Your task to perform on an android device: Open Android settings Image 0: 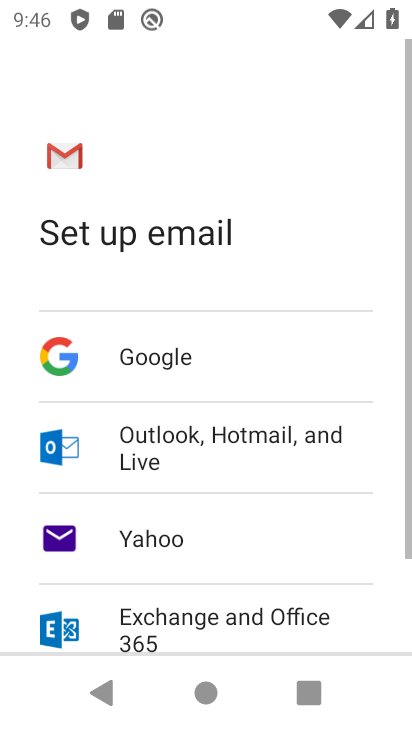
Step 0: press back button
Your task to perform on an android device: Open Android settings Image 1: 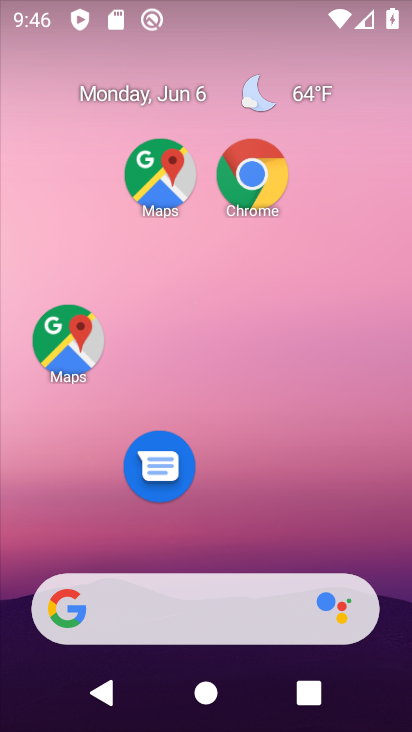
Step 1: drag from (237, 700) to (177, 146)
Your task to perform on an android device: Open Android settings Image 2: 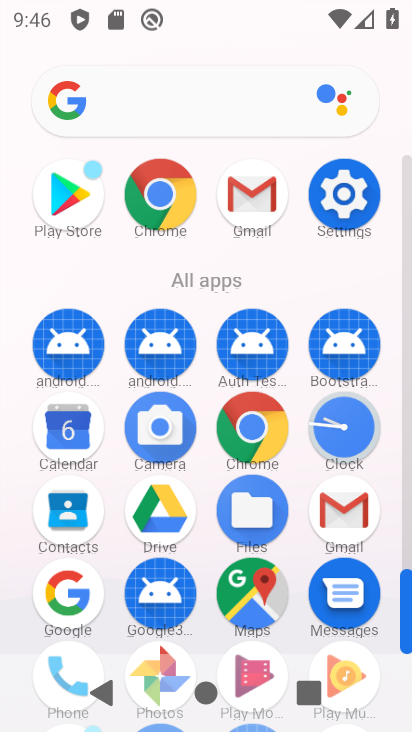
Step 2: click (335, 188)
Your task to perform on an android device: Open Android settings Image 3: 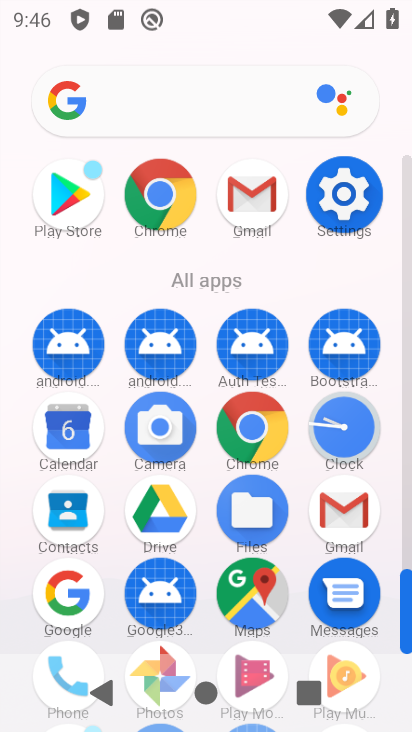
Step 3: click (335, 188)
Your task to perform on an android device: Open Android settings Image 4: 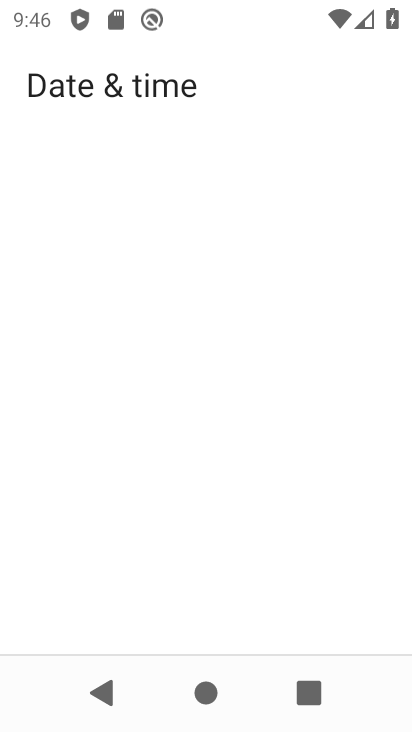
Step 4: click (337, 190)
Your task to perform on an android device: Open Android settings Image 5: 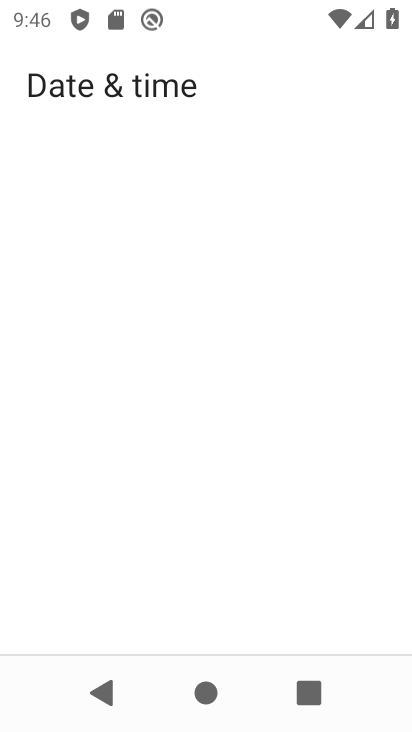
Step 5: click (338, 191)
Your task to perform on an android device: Open Android settings Image 6: 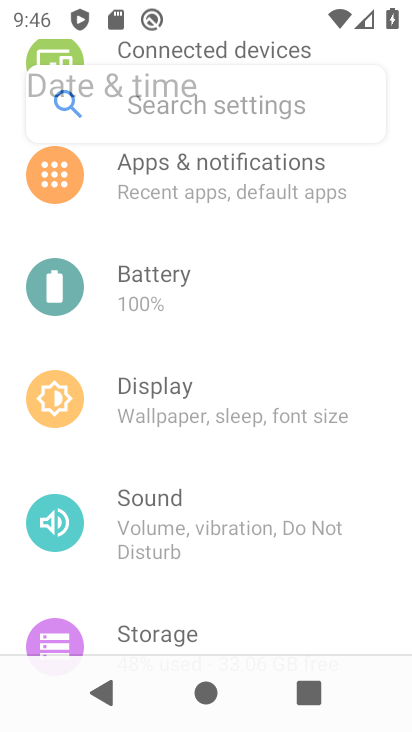
Step 6: click (338, 191)
Your task to perform on an android device: Open Android settings Image 7: 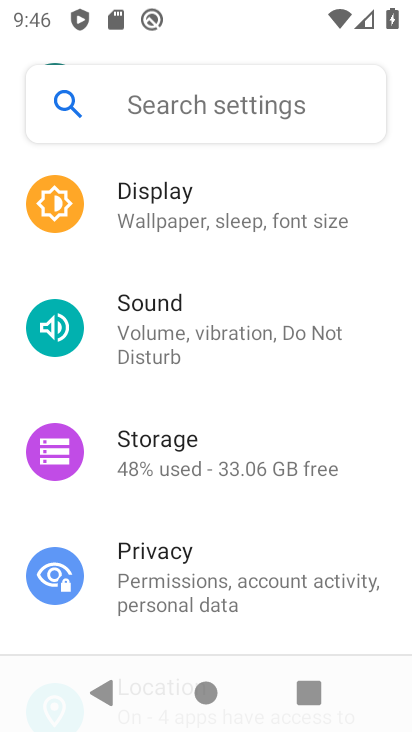
Step 7: drag from (230, 558) to (167, 164)
Your task to perform on an android device: Open Android settings Image 8: 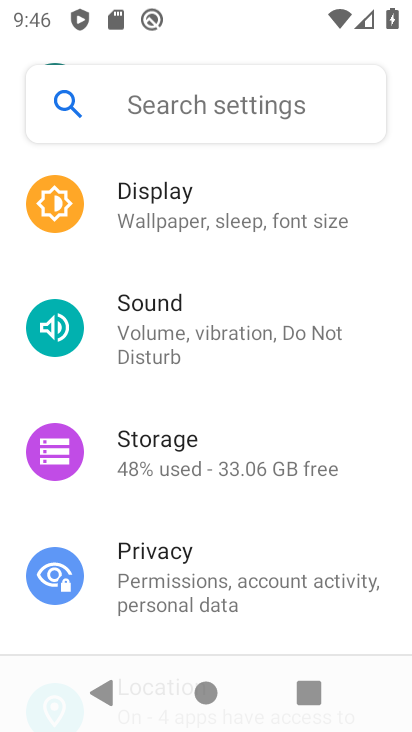
Step 8: drag from (240, 389) to (191, 146)
Your task to perform on an android device: Open Android settings Image 9: 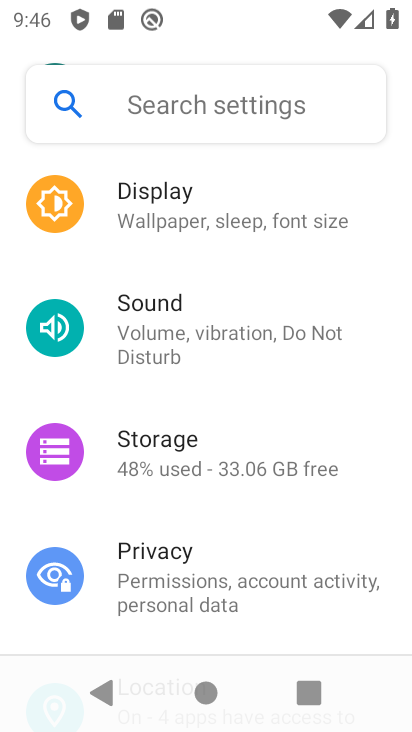
Step 9: drag from (216, 406) to (175, 143)
Your task to perform on an android device: Open Android settings Image 10: 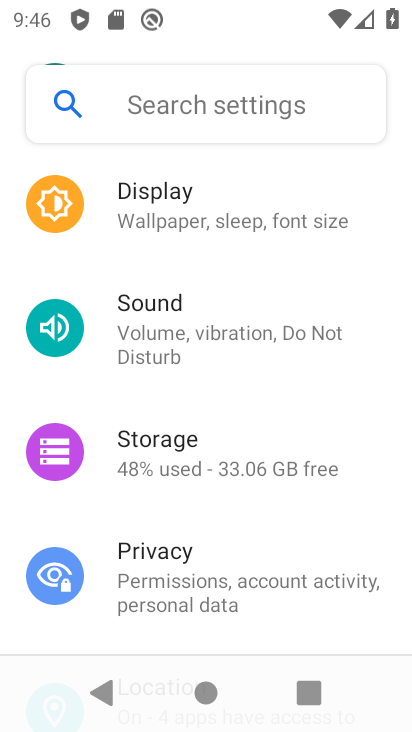
Step 10: drag from (146, 512) to (146, 232)
Your task to perform on an android device: Open Android settings Image 11: 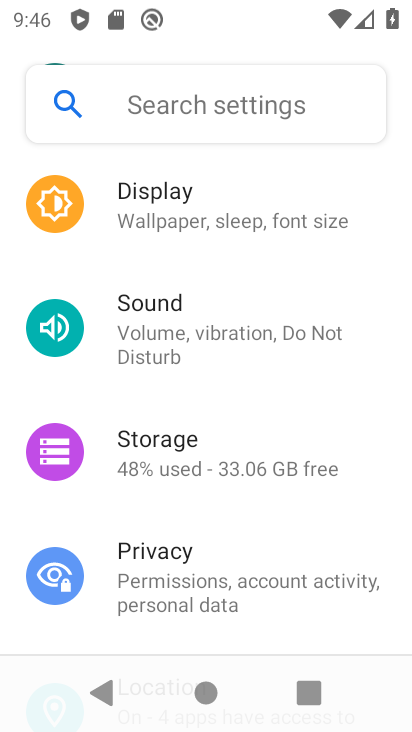
Step 11: drag from (199, 451) to (231, 181)
Your task to perform on an android device: Open Android settings Image 12: 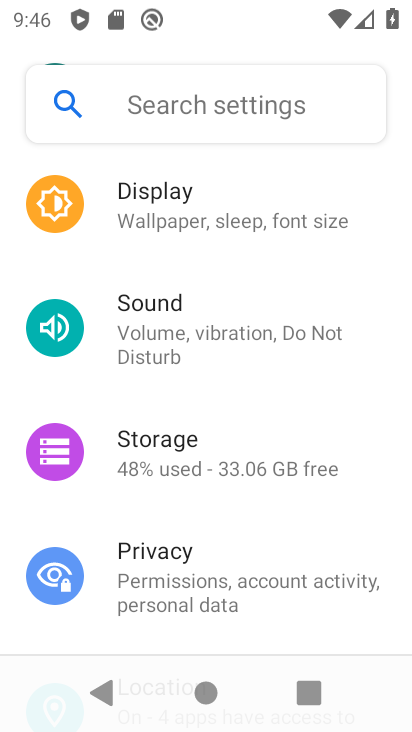
Step 12: drag from (240, 459) to (214, 244)
Your task to perform on an android device: Open Android settings Image 13: 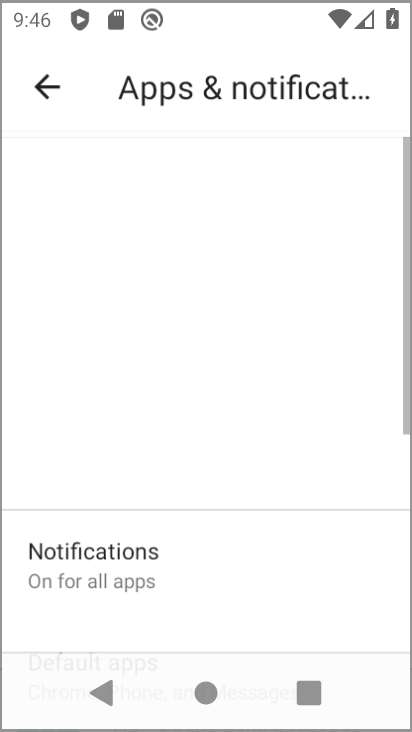
Step 13: drag from (215, 355) to (194, 184)
Your task to perform on an android device: Open Android settings Image 14: 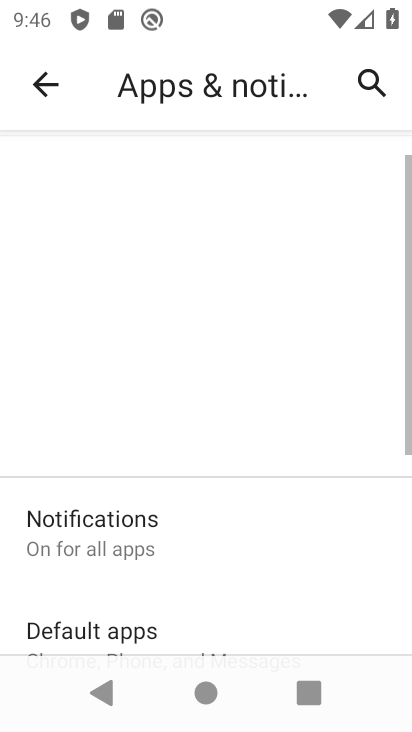
Step 14: drag from (250, 461) to (228, 278)
Your task to perform on an android device: Open Android settings Image 15: 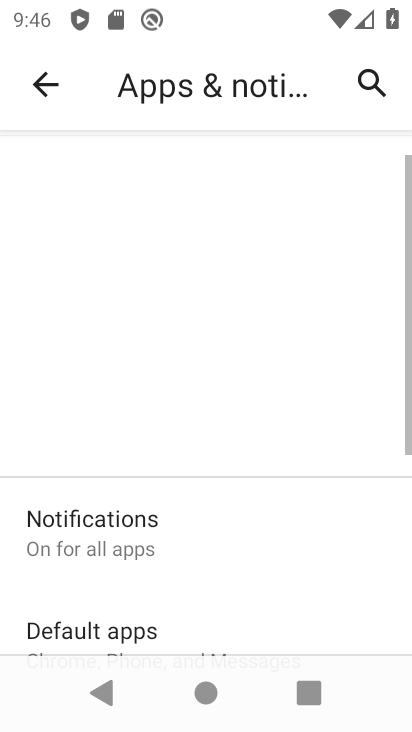
Step 15: click (42, 71)
Your task to perform on an android device: Open Android settings Image 16: 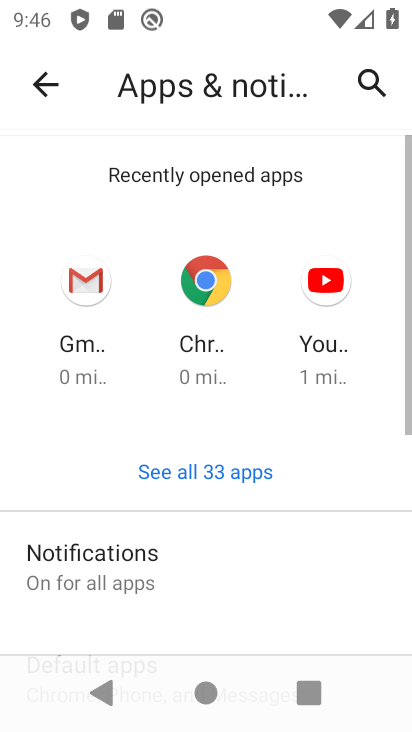
Step 16: click (33, 82)
Your task to perform on an android device: Open Android settings Image 17: 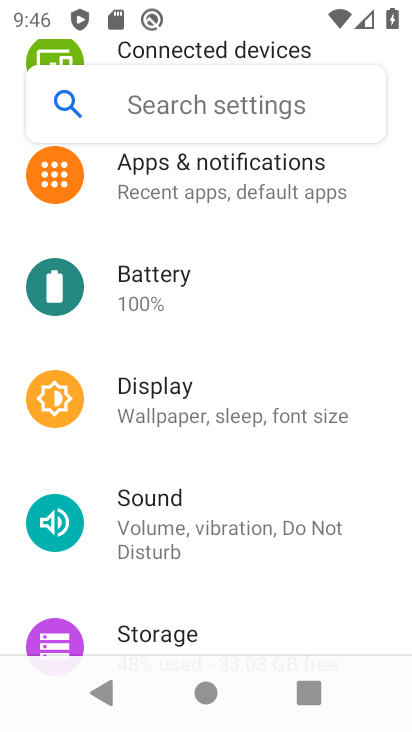
Step 17: drag from (233, 497) to (229, 204)
Your task to perform on an android device: Open Android settings Image 18: 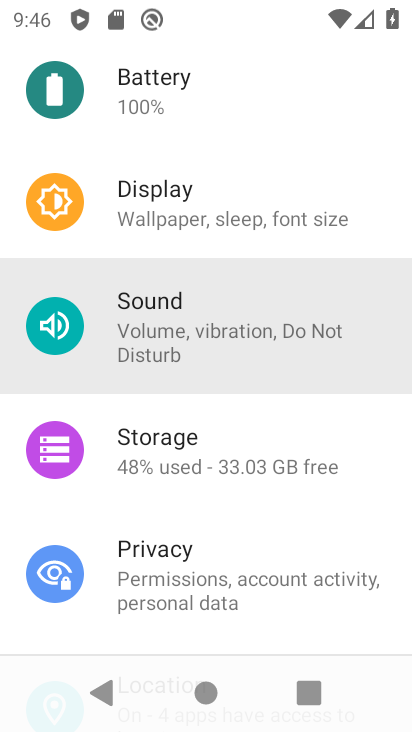
Step 18: drag from (257, 497) to (235, 257)
Your task to perform on an android device: Open Android settings Image 19: 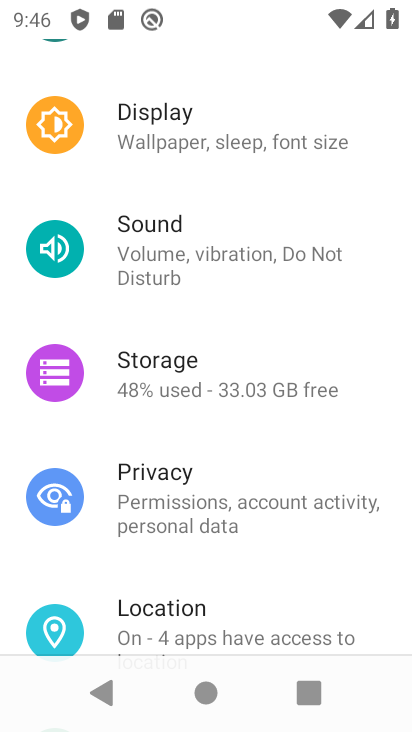
Step 19: drag from (271, 442) to (286, 179)
Your task to perform on an android device: Open Android settings Image 20: 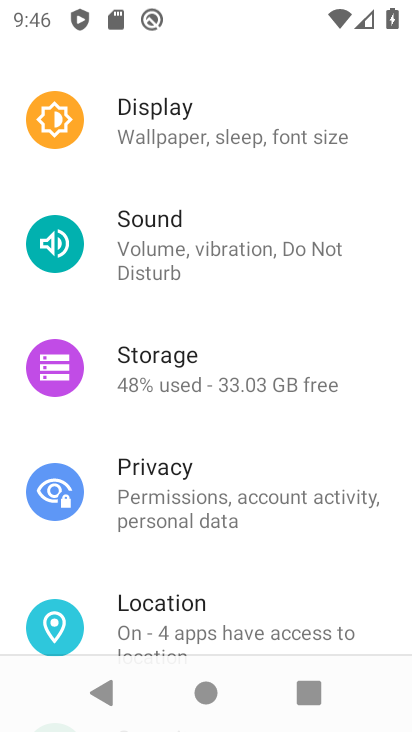
Step 20: drag from (334, 435) to (334, 161)
Your task to perform on an android device: Open Android settings Image 21: 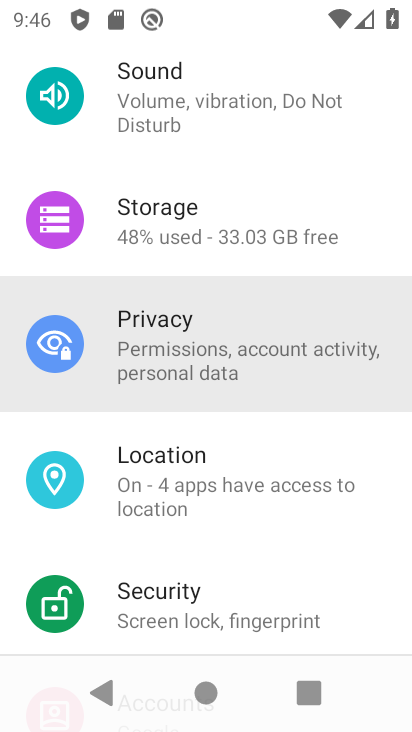
Step 21: drag from (286, 471) to (235, 187)
Your task to perform on an android device: Open Android settings Image 22: 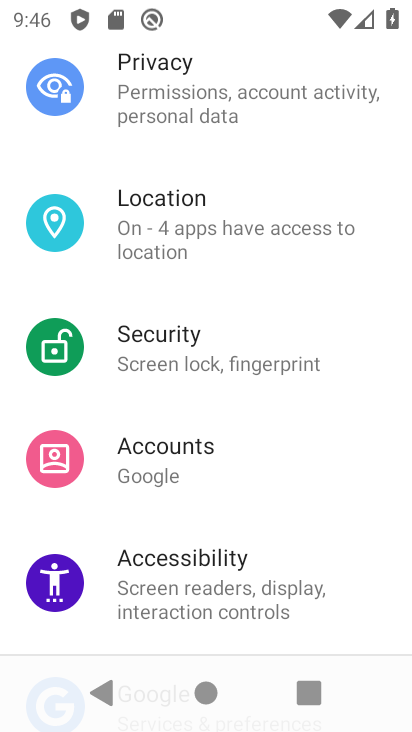
Step 22: drag from (213, 466) to (192, 203)
Your task to perform on an android device: Open Android settings Image 23: 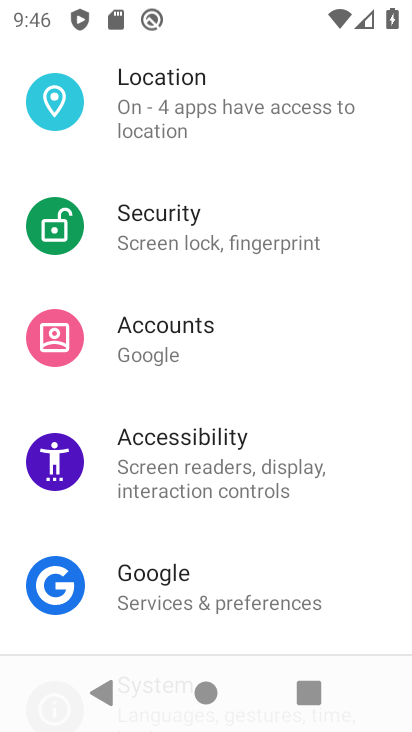
Step 23: drag from (224, 415) to (221, 195)
Your task to perform on an android device: Open Android settings Image 24: 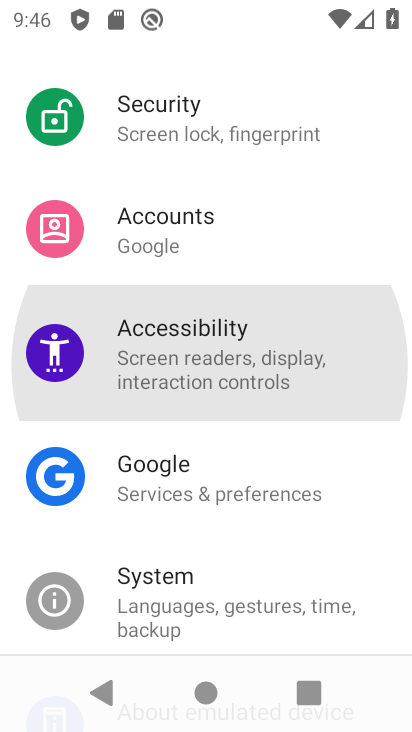
Step 24: drag from (259, 501) to (180, 110)
Your task to perform on an android device: Open Android settings Image 25: 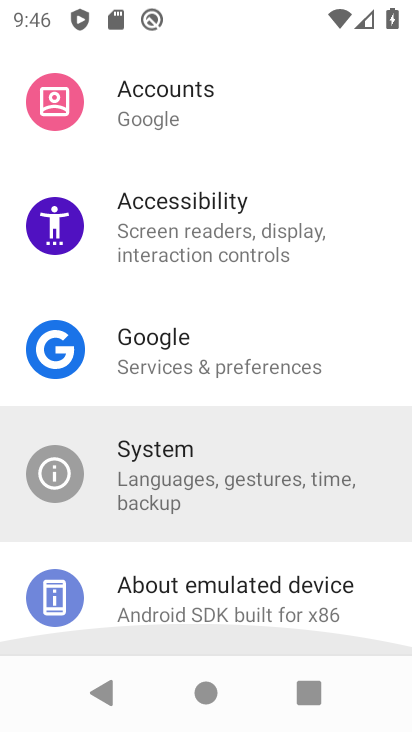
Step 25: drag from (218, 520) to (196, 189)
Your task to perform on an android device: Open Android settings Image 26: 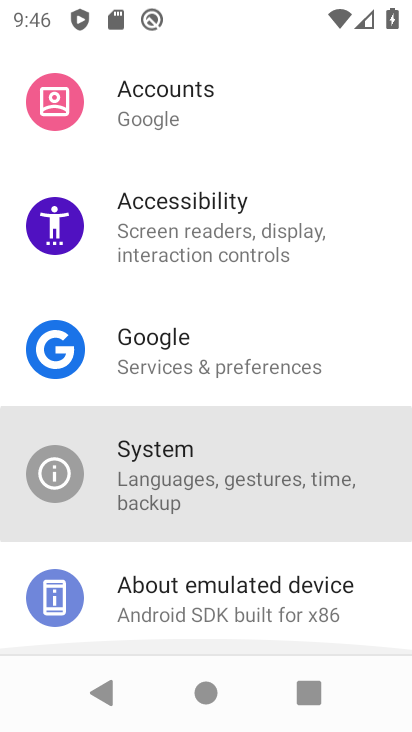
Step 26: drag from (287, 562) to (264, 280)
Your task to perform on an android device: Open Android settings Image 27: 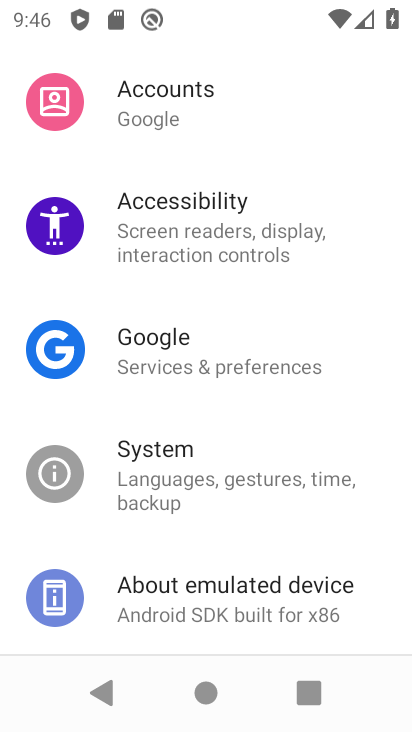
Step 27: click (170, 611)
Your task to perform on an android device: Open Android settings Image 28: 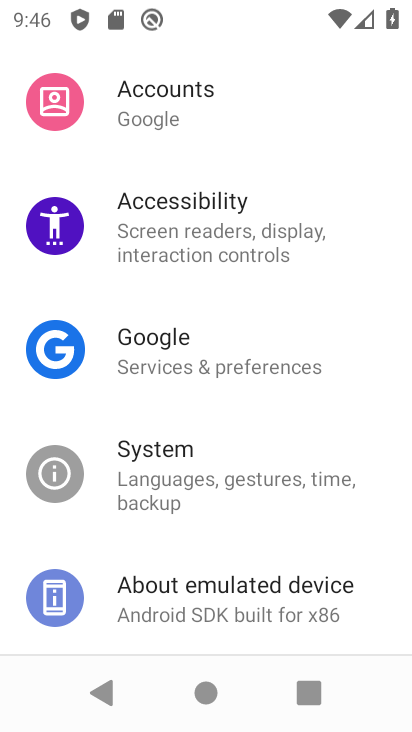
Step 28: click (170, 611)
Your task to perform on an android device: Open Android settings Image 29: 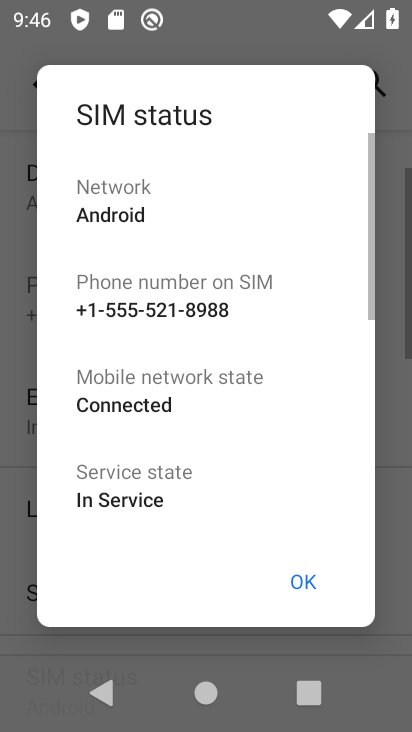
Step 29: task complete